Your task to perform on an android device: What's on my calendar tomorrow? Image 0: 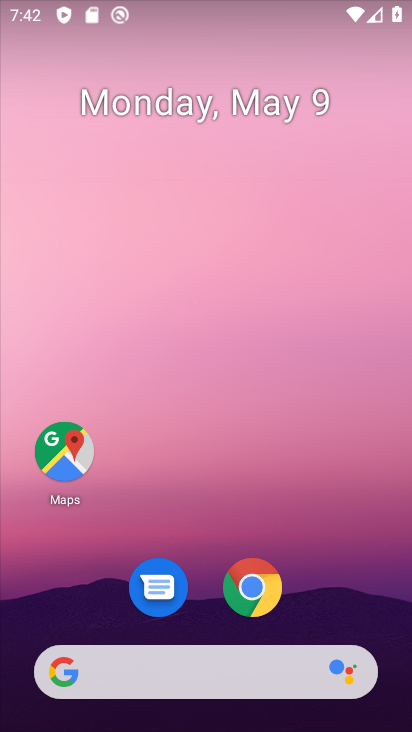
Step 0: drag from (204, 617) to (252, 18)
Your task to perform on an android device: What's on my calendar tomorrow? Image 1: 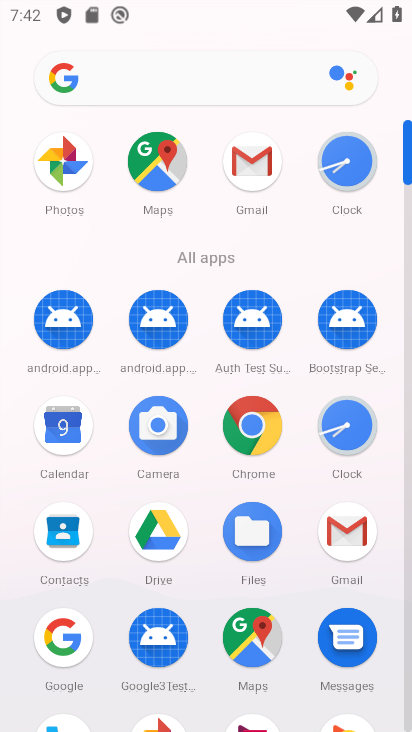
Step 1: click (71, 434)
Your task to perform on an android device: What's on my calendar tomorrow? Image 2: 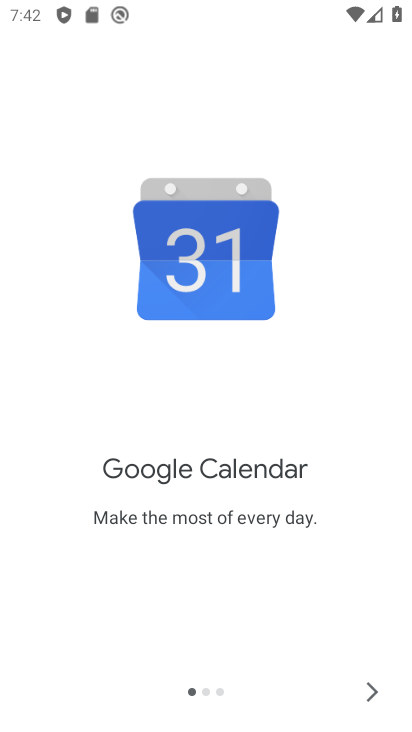
Step 2: click (366, 683)
Your task to perform on an android device: What's on my calendar tomorrow? Image 3: 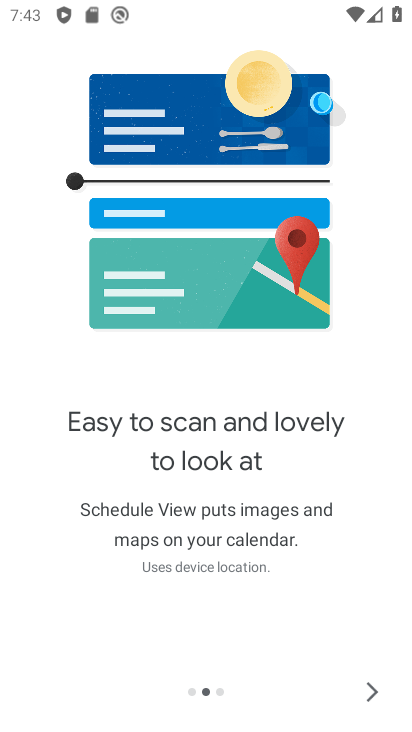
Step 3: click (371, 681)
Your task to perform on an android device: What's on my calendar tomorrow? Image 4: 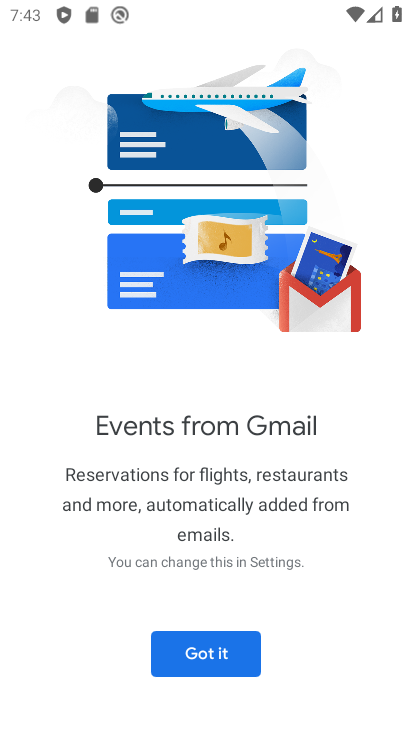
Step 4: click (239, 653)
Your task to perform on an android device: What's on my calendar tomorrow? Image 5: 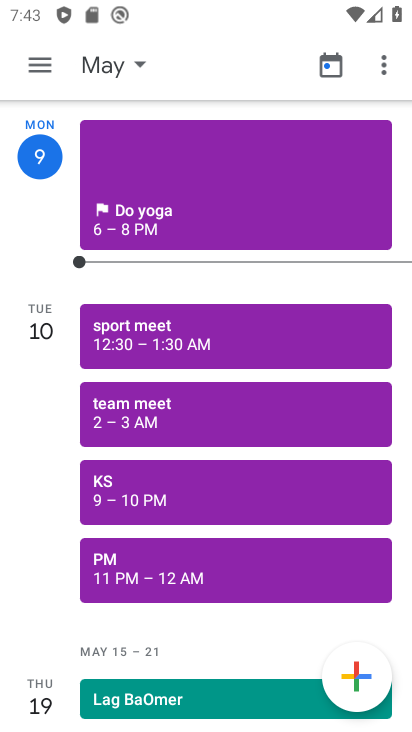
Step 5: click (35, 222)
Your task to perform on an android device: What's on my calendar tomorrow? Image 6: 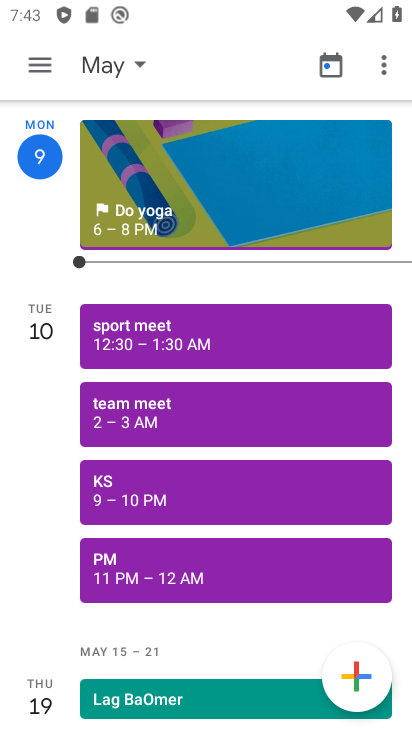
Step 6: click (42, 331)
Your task to perform on an android device: What's on my calendar tomorrow? Image 7: 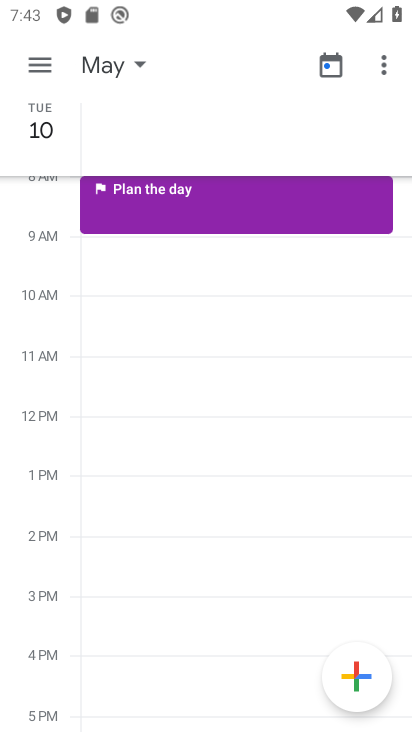
Step 7: task complete